Your task to perform on an android device: toggle airplane mode Image 0: 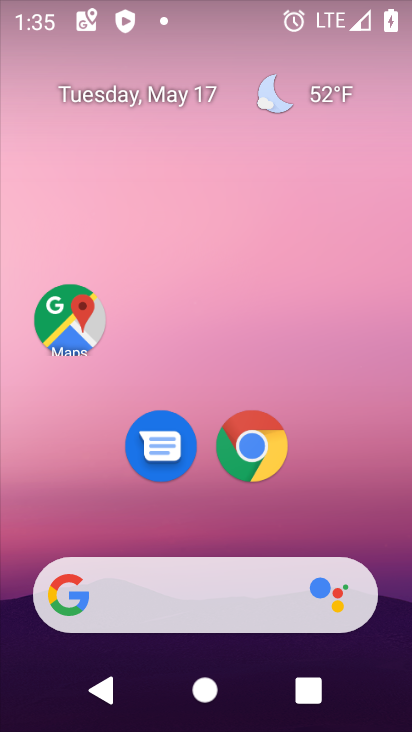
Step 0: drag from (182, 477) to (226, 148)
Your task to perform on an android device: toggle airplane mode Image 1: 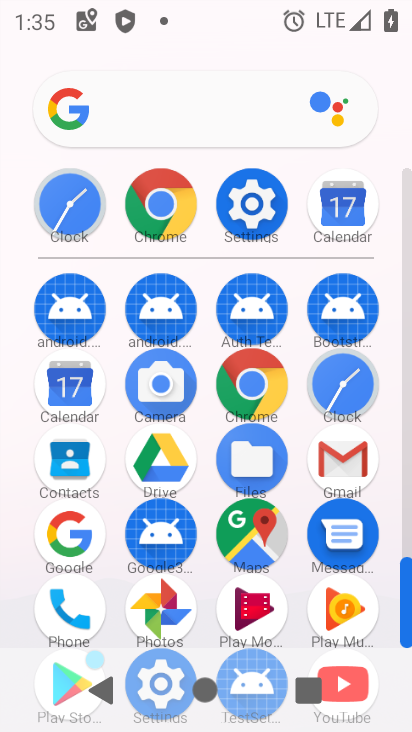
Step 1: click (251, 205)
Your task to perform on an android device: toggle airplane mode Image 2: 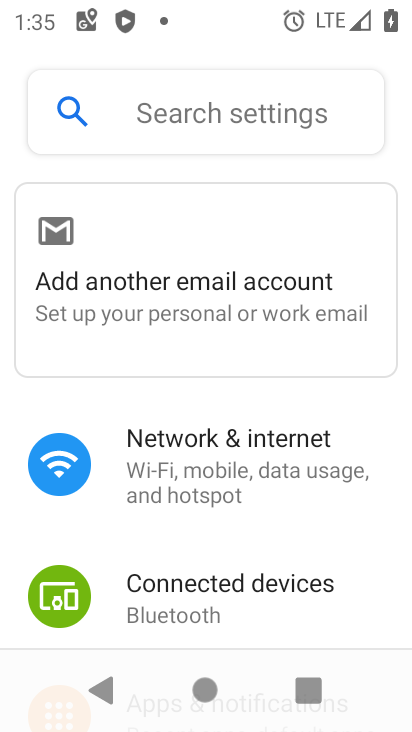
Step 2: click (208, 497)
Your task to perform on an android device: toggle airplane mode Image 3: 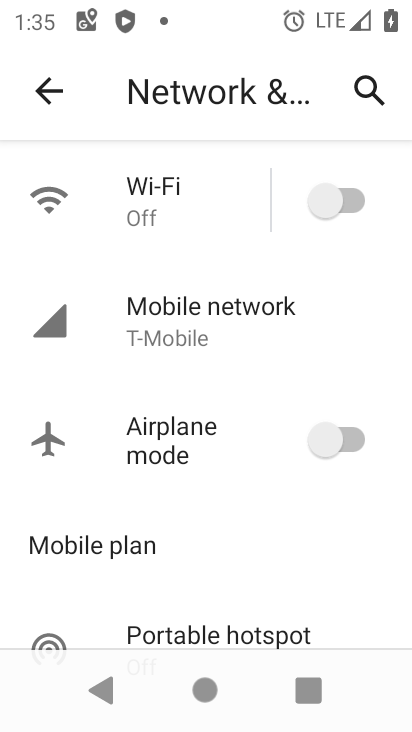
Step 3: click (336, 432)
Your task to perform on an android device: toggle airplane mode Image 4: 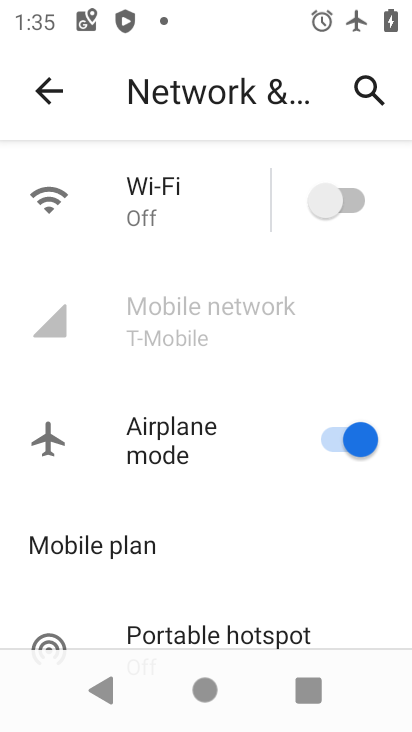
Step 4: task complete